Your task to perform on an android device: stop showing notifications on the lock screen Image 0: 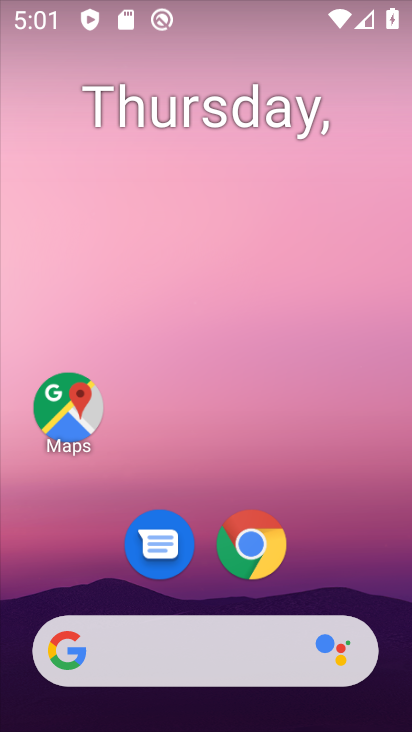
Step 0: drag from (351, 569) to (282, 170)
Your task to perform on an android device: stop showing notifications on the lock screen Image 1: 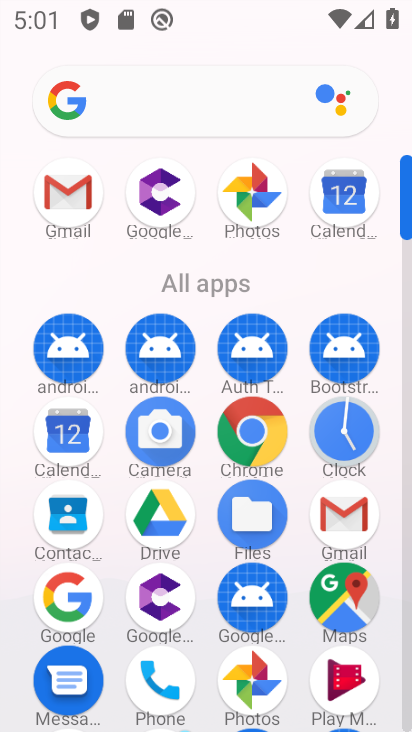
Step 1: drag from (218, 555) to (207, 164)
Your task to perform on an android device: stop showing notifications on the lock screen Image 2: 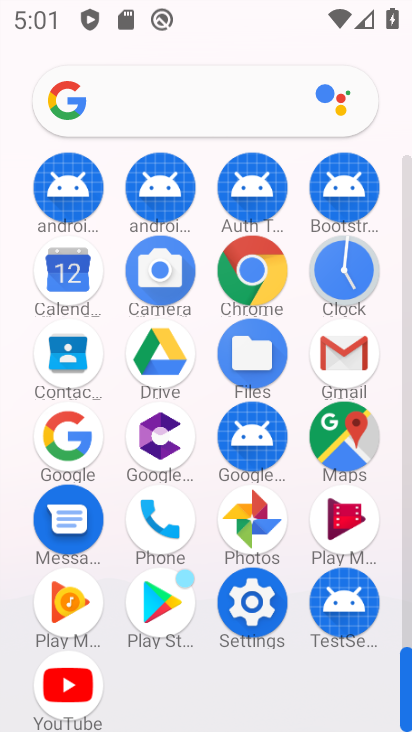
Step 2: click (262, 595)
Your task to perform on an android device: stop showing notifications on the lock screen Image 3: 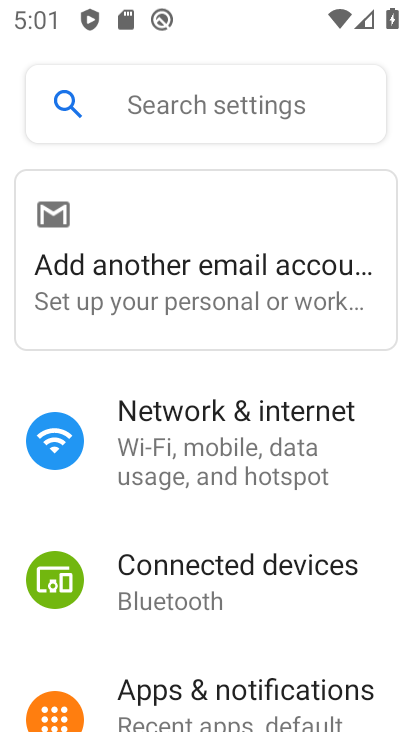
Step 3: drag from (258, 574) to (274, 231)
Your task to perform on an android device: stop showing notifications on the lock screen Image 4: 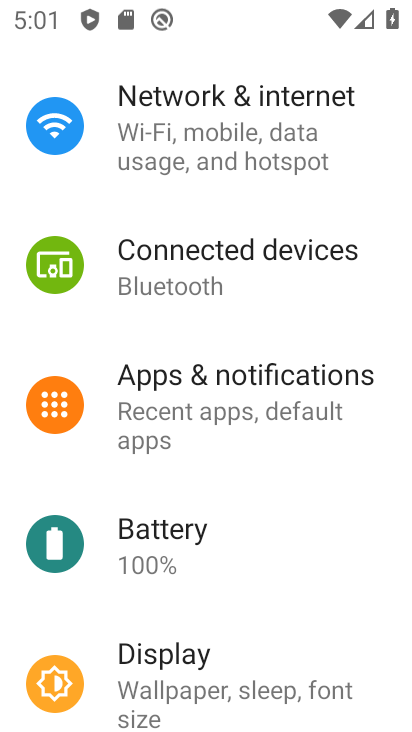
Step 4: click (246, 372)
Your task to perform on an android device: stop showing notifications on the lock screen Image 5: 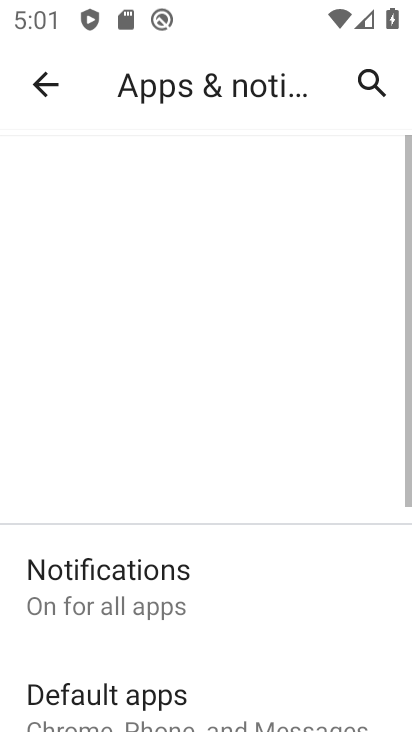
Step 5: drag from (229, 590) to (223, 169)
Your task to perform on an android device: stop showing notifications on the lock screen Image 6: 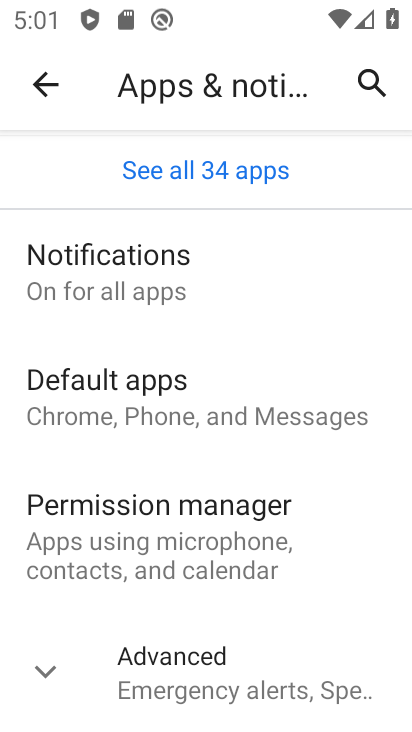
Step 6: click (163, 294)
Your task to perform on an android device: stop showing notifications on the lock screen Image 7: 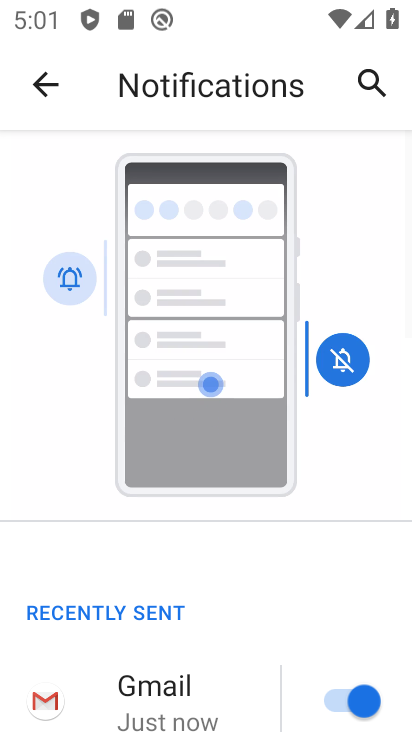
Step 7: drag from (252, 577) to (266, 123)
Your task to perform on an android device: stop showing notifications on the lock screen Image 8: 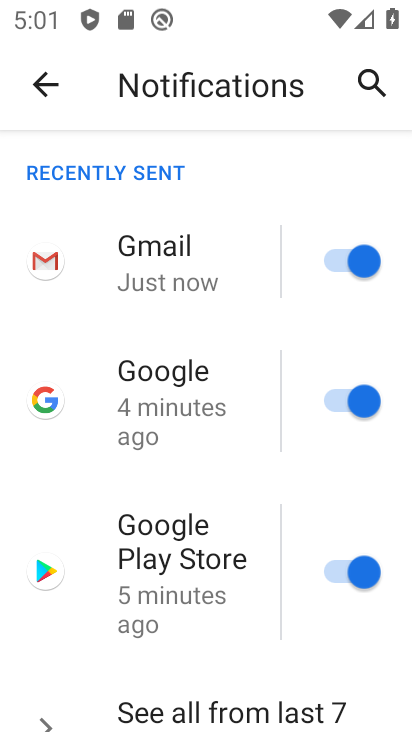
Step 8: drag from (232, 641) to (183, 125)
Your task to perform on an android device: stop showing notifications on the lock screen Image 9: 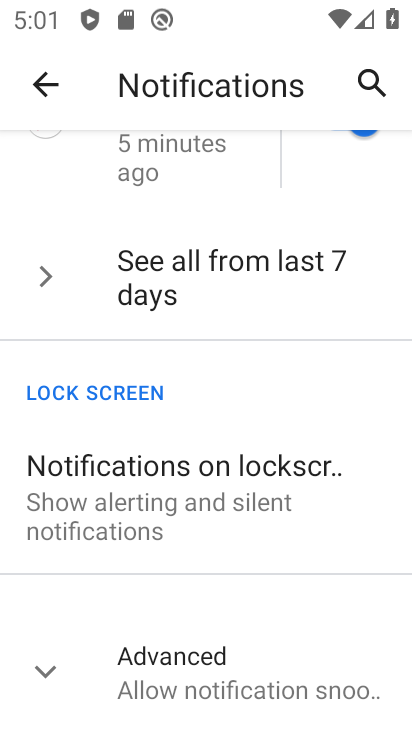
Step 9: click (191, 488)
Your task to perform on an android device: stop showing notifications on the lock screen Image 10: 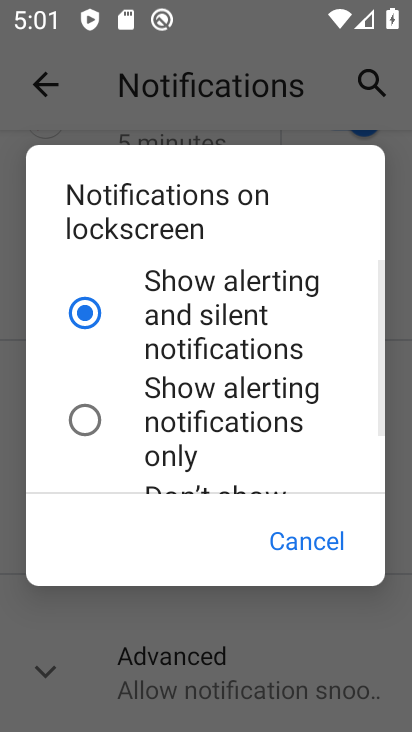
Step 10: drag from (256, 463) to (277, 190)
Your task to perform on an android device: stop showing notifications on the lock screen Image 11: 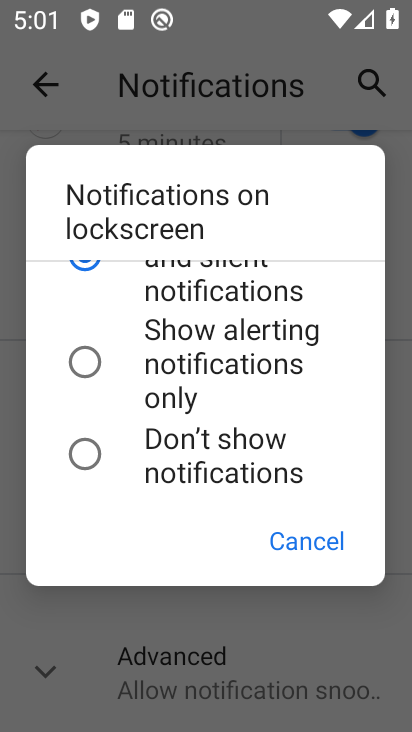
Step 11: click (245, 426)
Your task to perform on an android device: stop showing notifications on the lock screen Image 12: 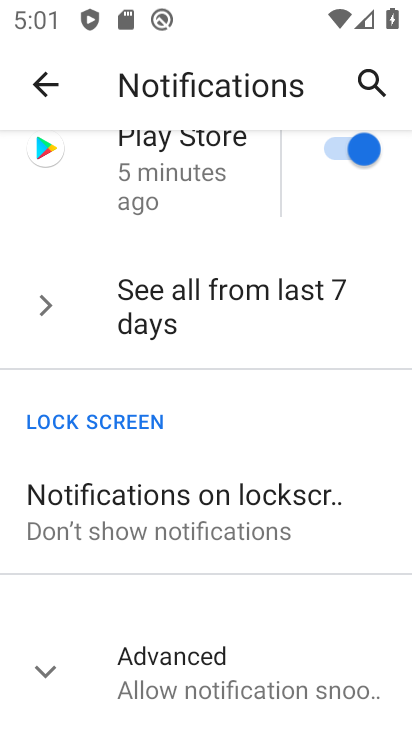
Step 12: task complete